Your task to perform on an android device: Add "razer naga" to the cart on amazon.com, then select checkout. Image 0: 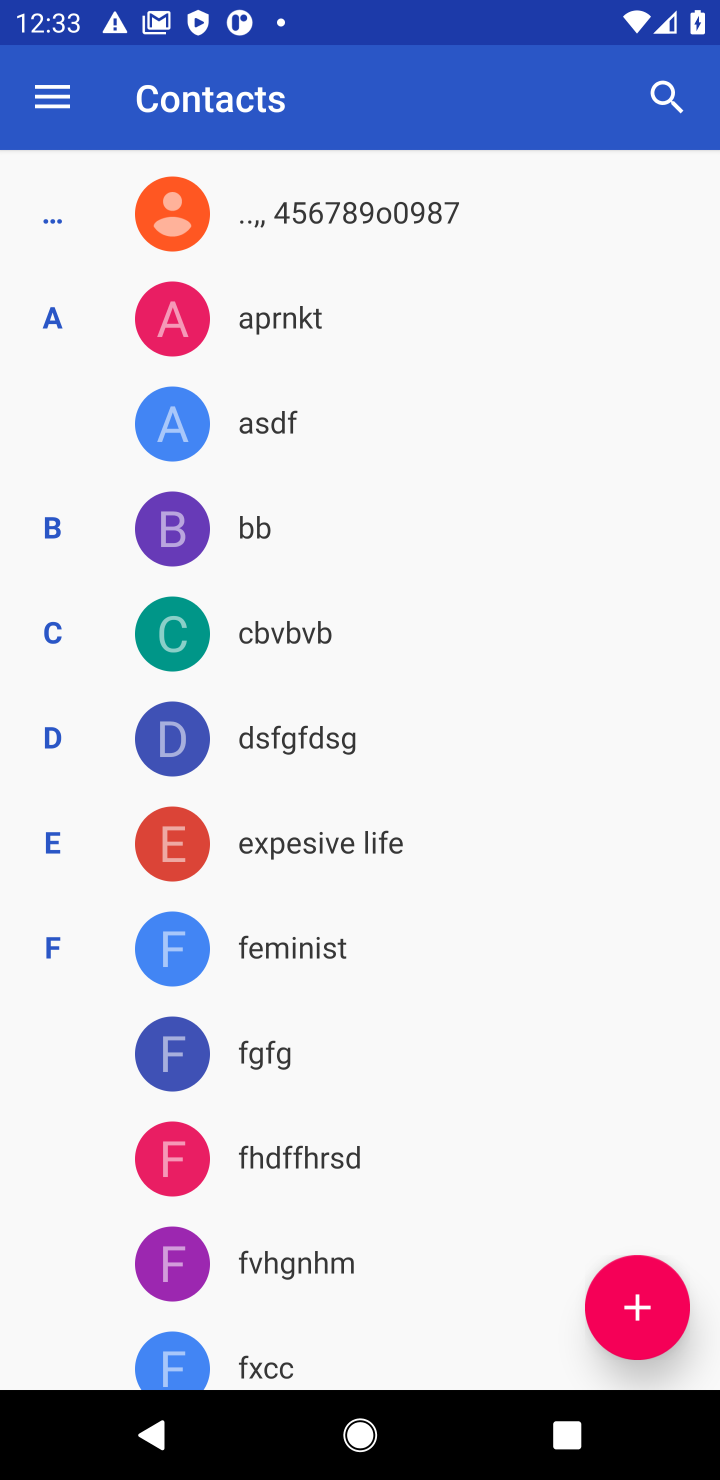
Step 0: task complete